Your task to perform on an android device: Go to notification settings Image 0: 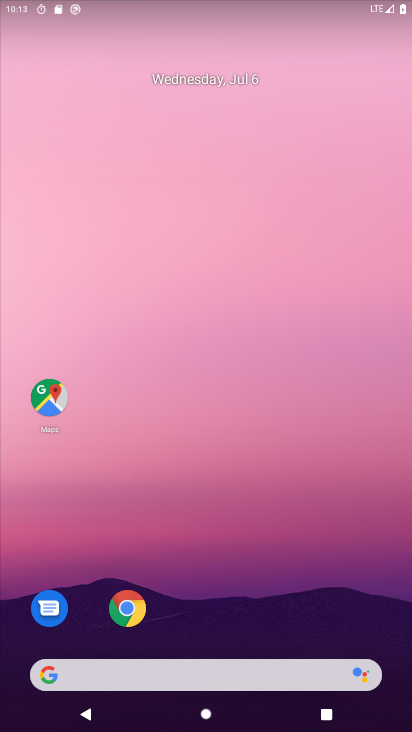
Step 0: drag from (228, 586) to (300, 4)
Your task to perform on an android device: Go to notification settings Image 1: 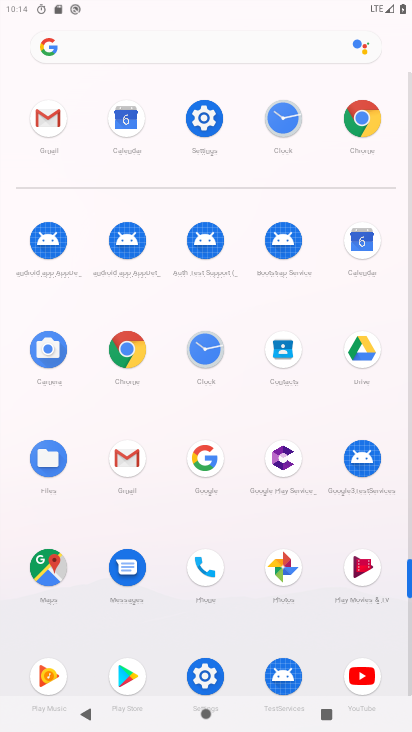
Step 1: click (204, 669)
Your task to perform on an android device: Go to notification settings Image 2: 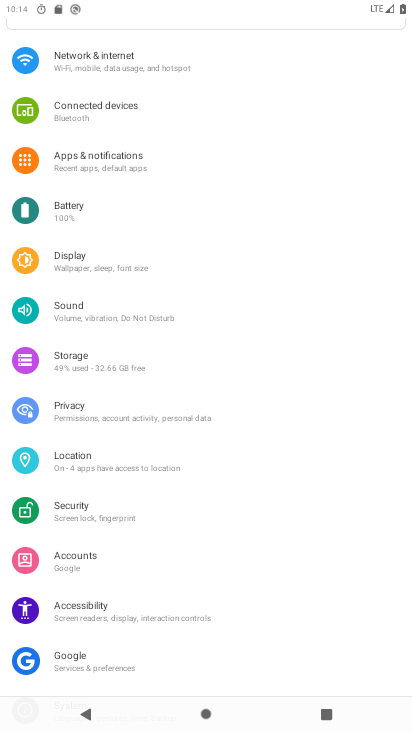
Step 2: click (127, 157)
Your task to perform on an android device: Go to notification settings Image 3: 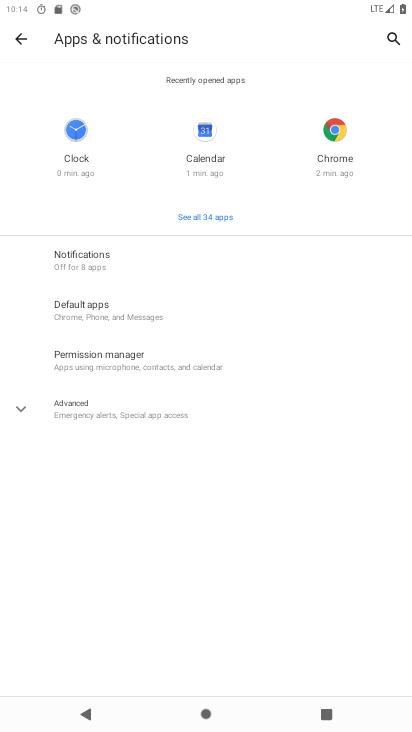
Step 3: click (114, 250)
Your task to perform on an android device: Go to notification settings Image 4: 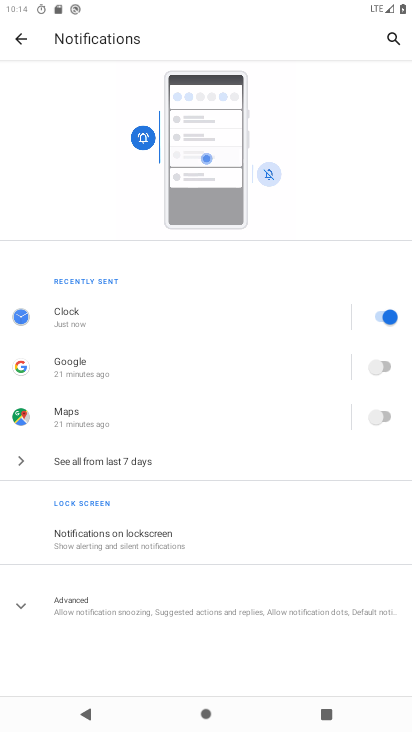
Step 4: task complete